Your task to perform on an android device: Open the calendar and show me this week's events? Image 0: 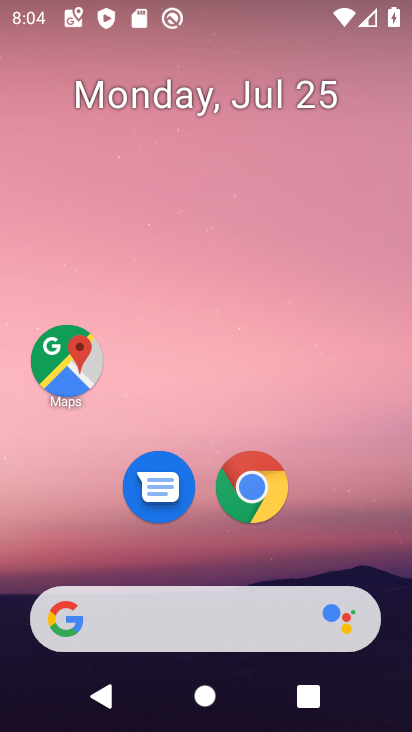
Step 0: drag from (185, 560) to (287, 0)
Your task to perform on an android device: Open the calendar and show me this week's events? Image 1: 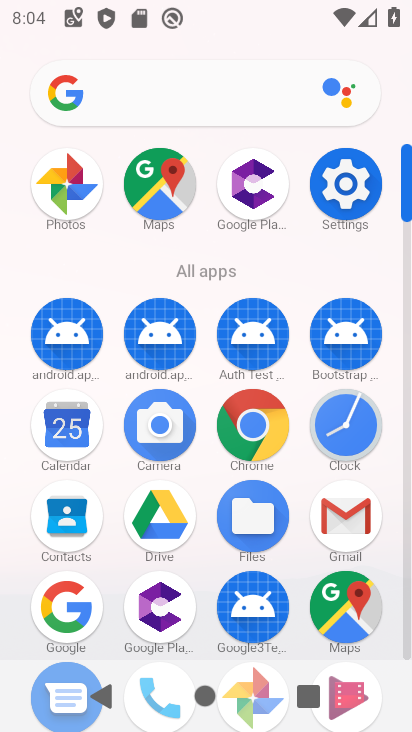
Step 1: click (68, 452)
Your task to perform on an android device: Open the calendar and show me this week's events? Image 2: 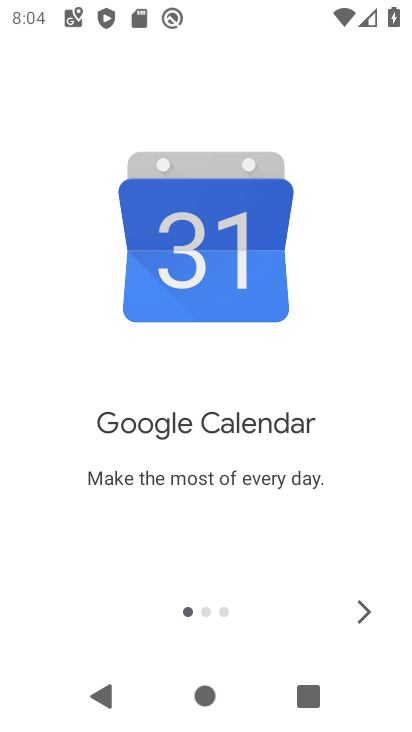
Step 2: click (369, 597)
Your task to perform on an android device: Open the calendar and show me this week's events? Image 3: 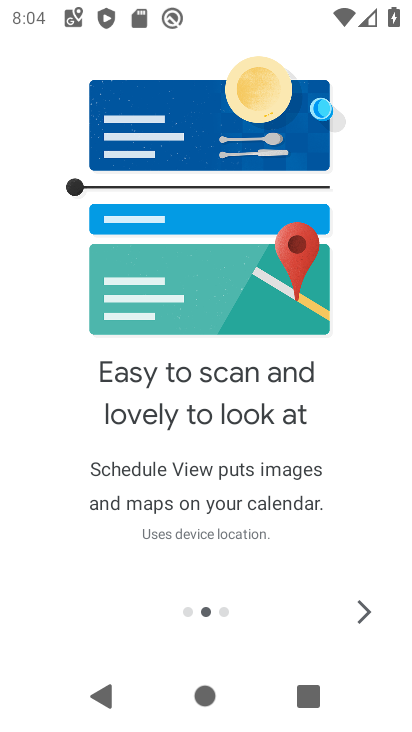
Step 3: click (362, 595)
Your task to perform on an android device: Open the calendar and show me this week's events? Image 4: 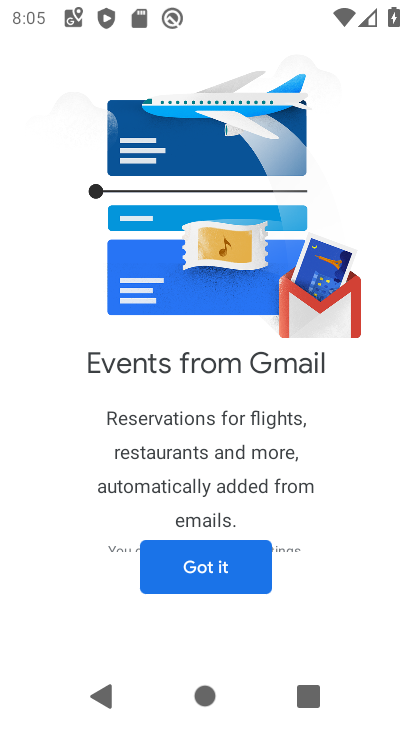
Step 4: click (250, 563)
Your task to perform on an android device: Open the calendar and show me this week's events? Image 5: 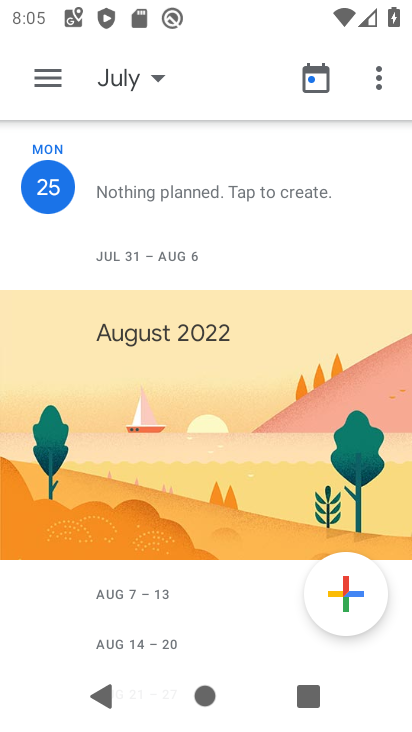
Step 5: press back button
Your task to perform on an android device: Open the calendar and show me this week's events? Image 6: 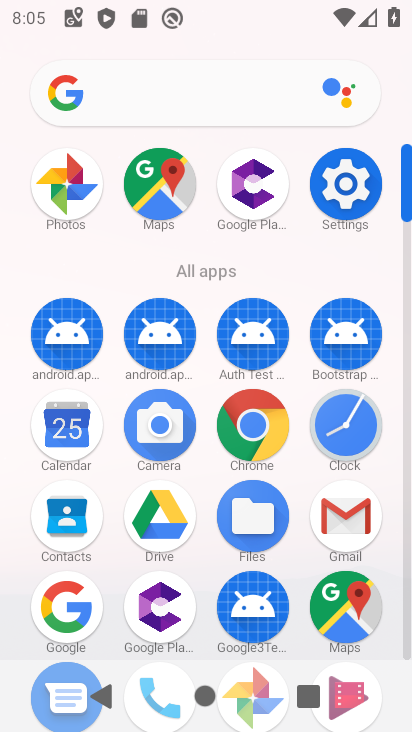
Step 6: click (60, 414)
Your task to perform on an android device: Open the calendar and show me this week's events? Image 7: 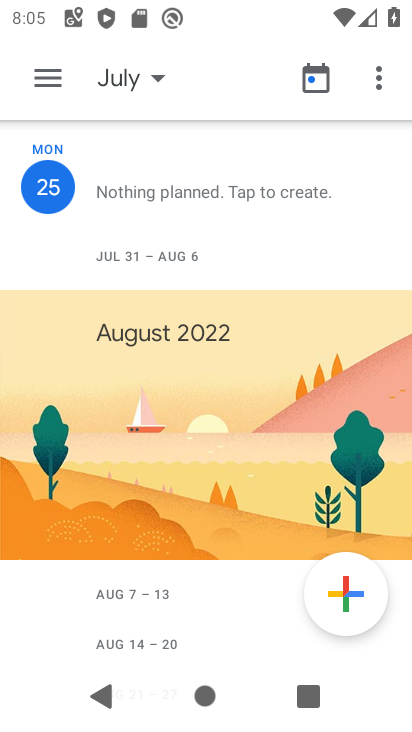
Step 7: click (147, 70)
Your task to perform on an android device: Open the calendar and show me this week's events? Image 8: 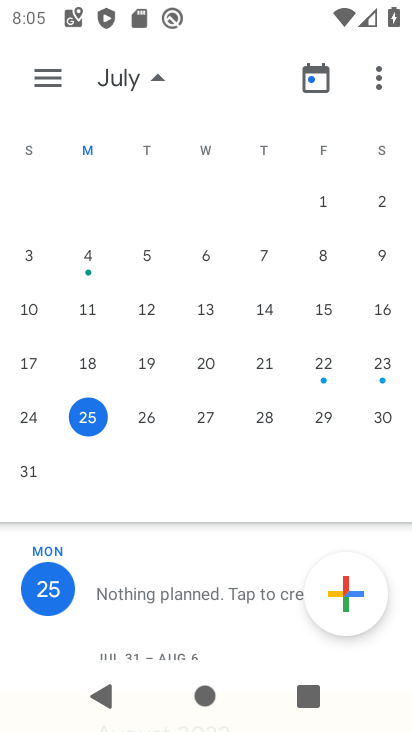
Step 8: task complete